Your task to perform on an android device: toggle airplane mode Image 0: 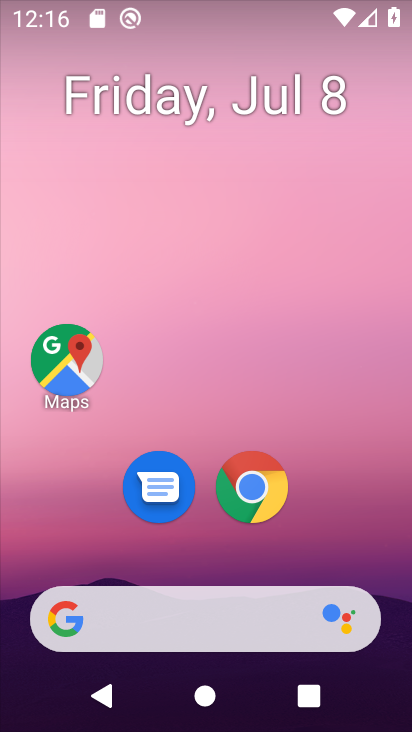
Step 0: drag from (382, 566) to (375, 149)
Your task to perform on an android device: toggle airplane mode Image 1: 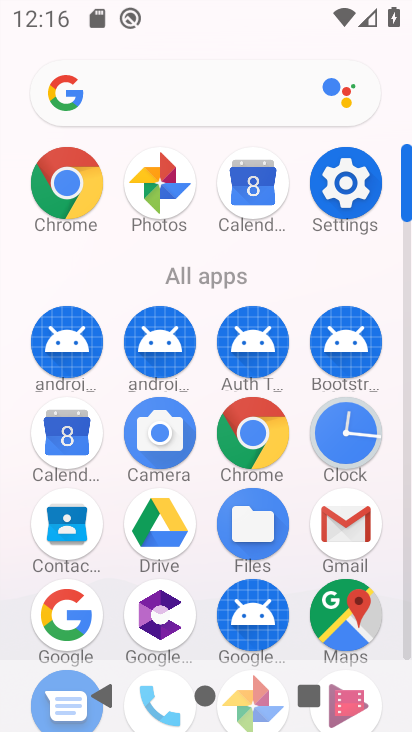
Step 1: click (343, 188)
Your task to perform on an android device: toggle airplane mode Image 2: 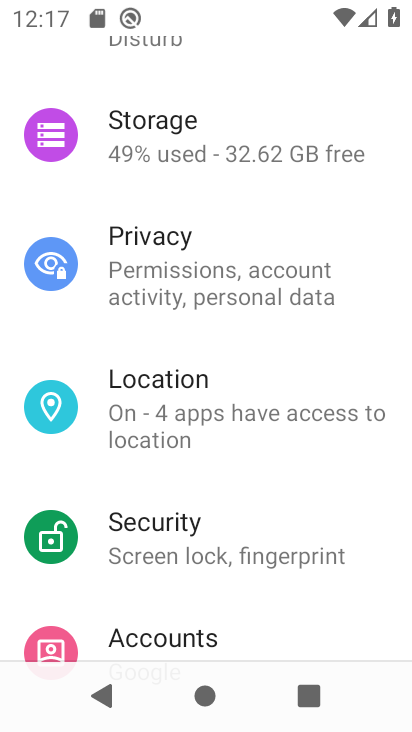
Step 2: drag from (357, 354) to (354, 435)
Your task to perform on an android device: toggle airplane mode Image 3: 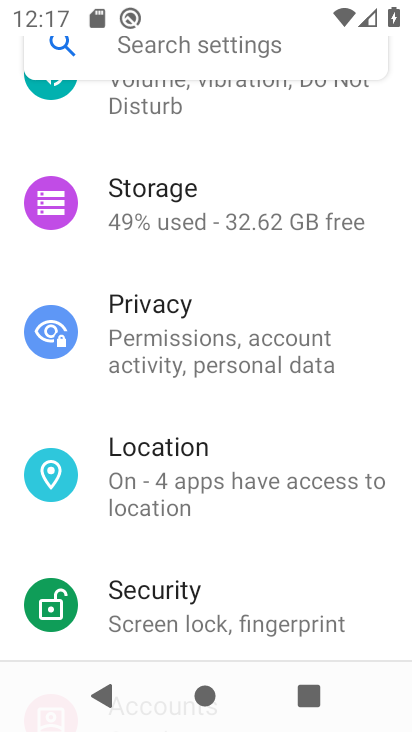
Step 3: drag from (363, 318) to (361, 417)
Your task to perform on an android device: toggle airplane mode Image 4: 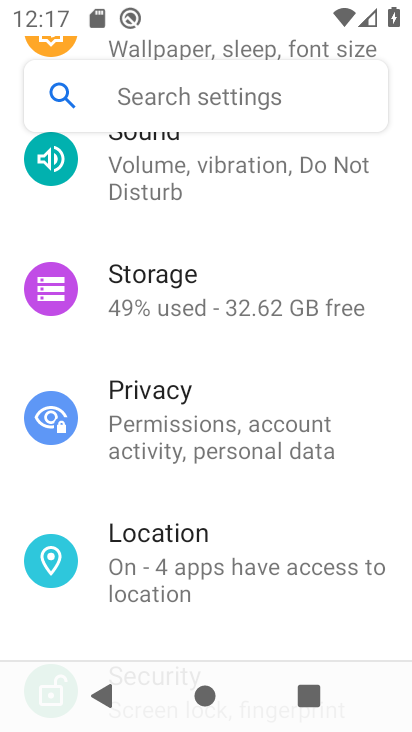
Step 4: drag from (363, 335) to (363, 424)
Your task to perform on an android device: toggle airplane mode Image 5: 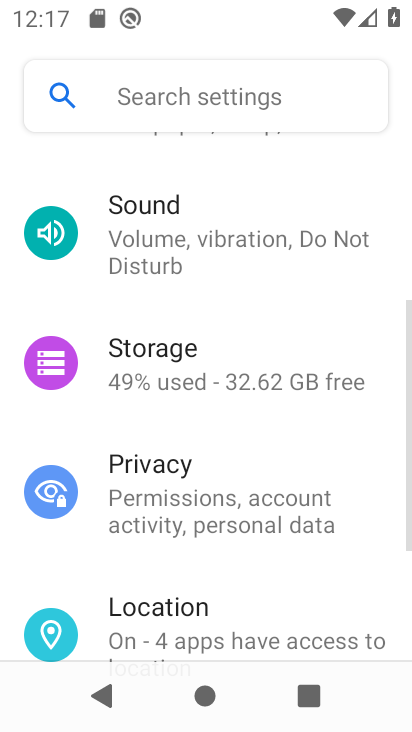
Step 5: drag from (360, 320) to (365, 410)
Your task to perform on an android device: toggle airplane mode Image 6: 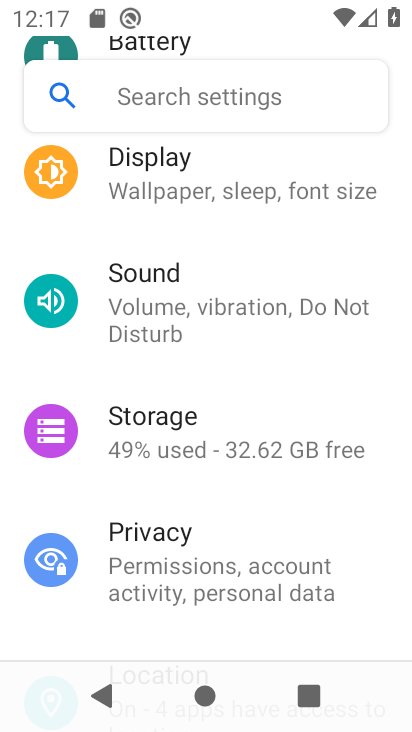
Step 6: drag from (371, 351) to (374, 417)
Your task to perform on an android device: toggle airplane mode Image 7: 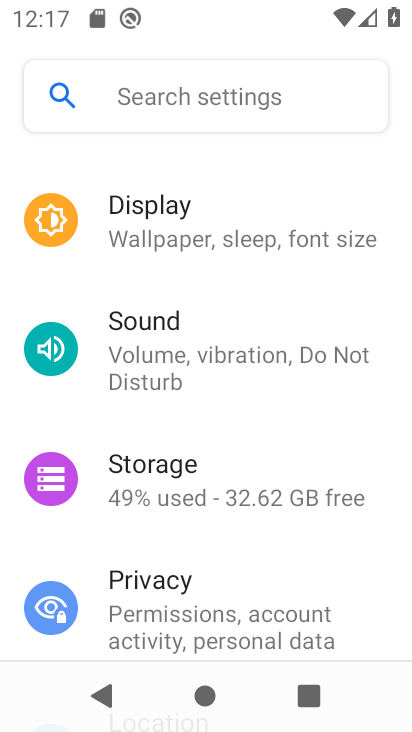
Step 7: drag from (386, 297) to (381, 395)
Your task to perform on an android device: toggle airplane mode Image 8: 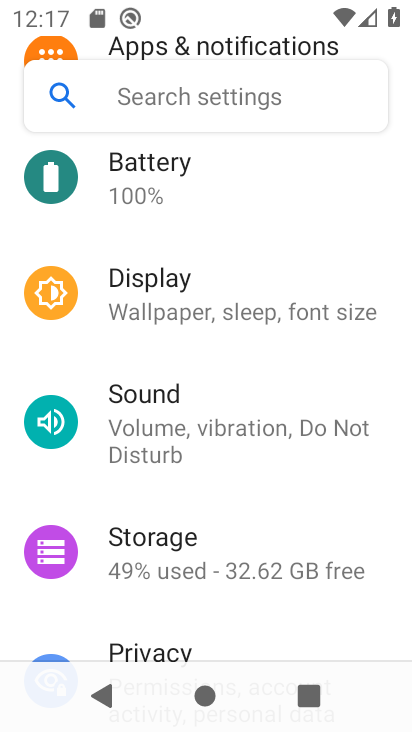
Step 8: drag from (369, 252) to (360, 385)
Your task to perform on an android device: toggle airplane mode Image 9: 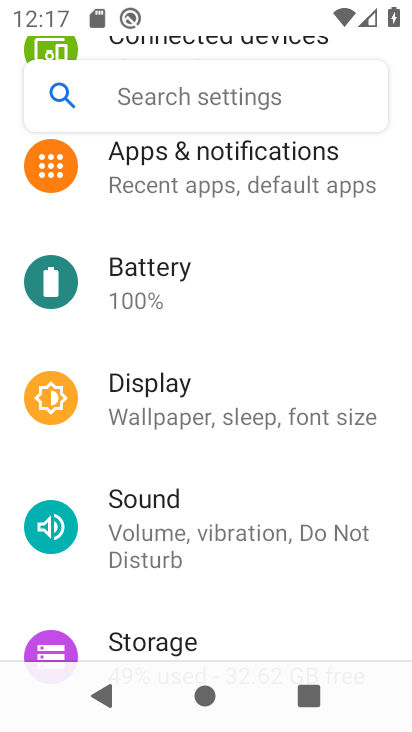
Step 9: drag from (363, 256) to (372, 360)
Your task to perform on an android device: toggle airplane mode Image 10: 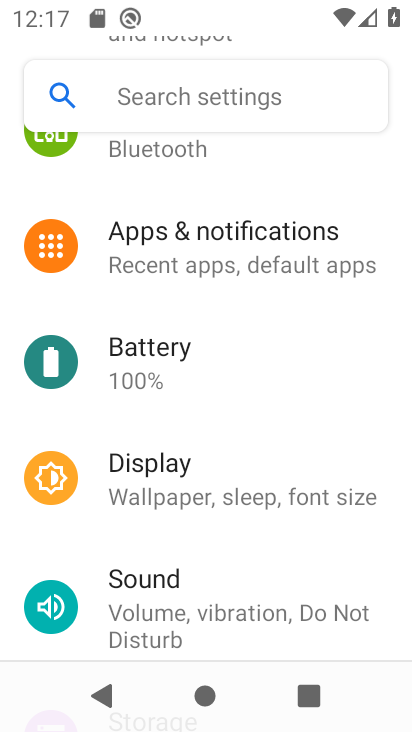
Step 10: drag from (381, 246) to (378, 379)
Your task to perform on an android device: toggle airplane mode Image 11: 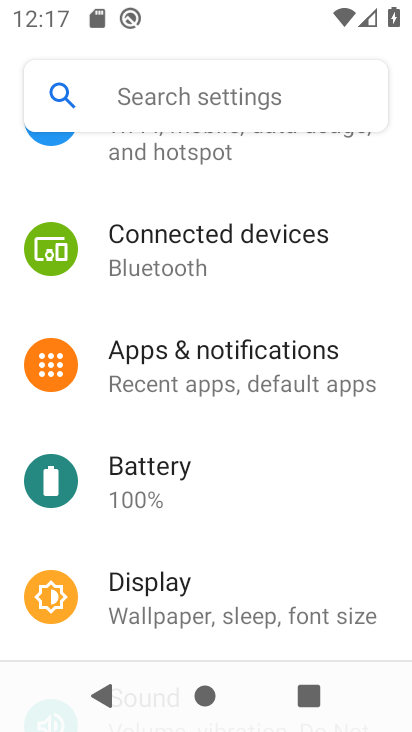
Step 11: drag from (366, 281) to (365, 378)
Your task to perform on an android device: toggle airplane mode Image 12: 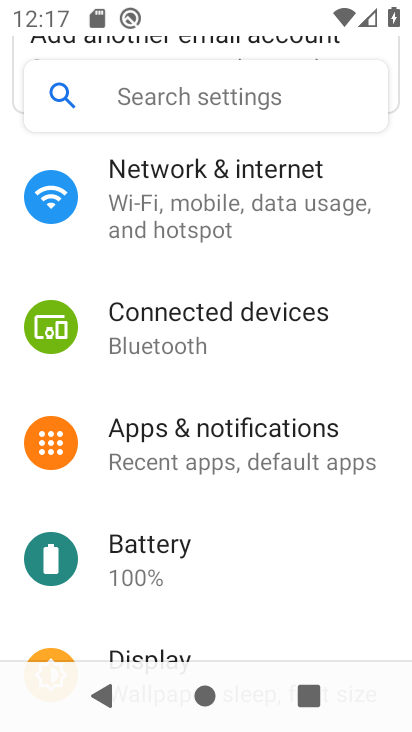
Step 12: drag from (367, 270) to (372, 377)
Your task to perform on an android device: toggle airplane mode Image 13: 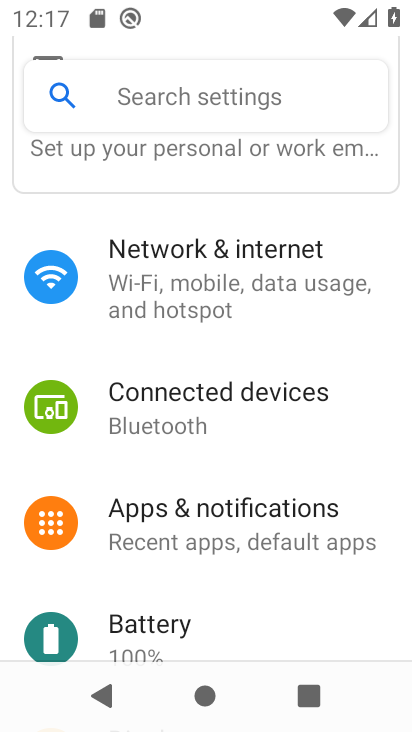
Step 13: drag from (365, 238) to (369, 354)
Your task to perform on an android device: toggle airplane mode Image 14: 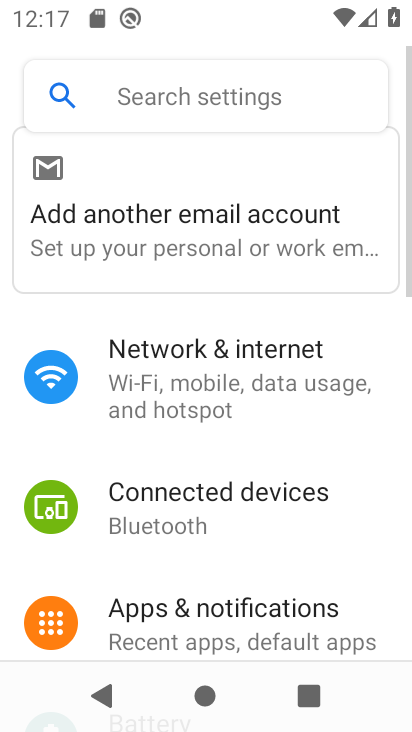
Step 14: click (358, 357)
Your task to perform on an android device: toggle airplane mode Image 15: 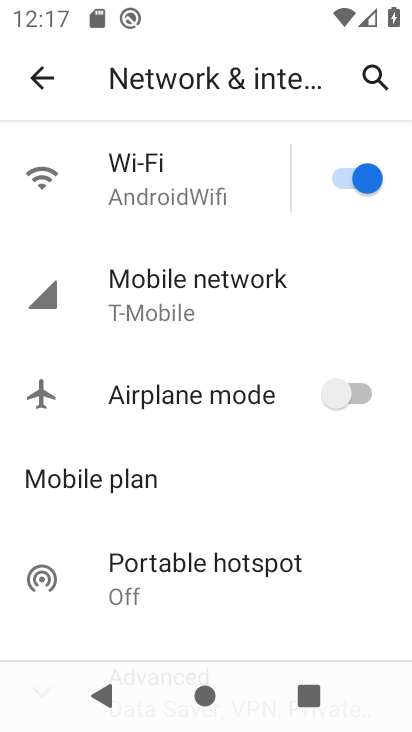
Step 15: click (335, 398)
Your task to perform on an android device: toggle airplane mode Image 16: 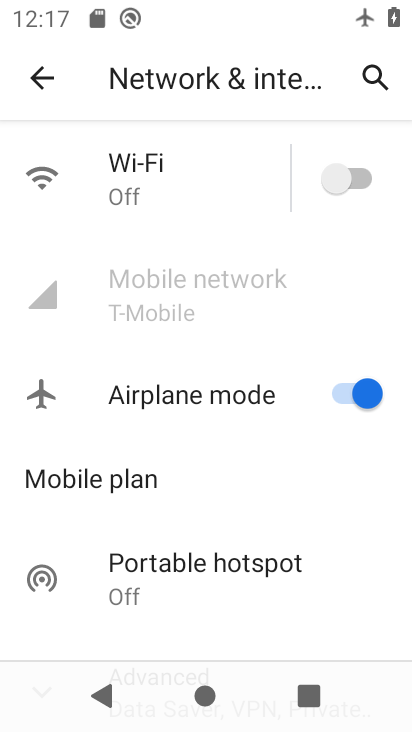
Step 16: task complete